Your task to perform on an android device: turn off priority inbox in the gmail app Image 0: 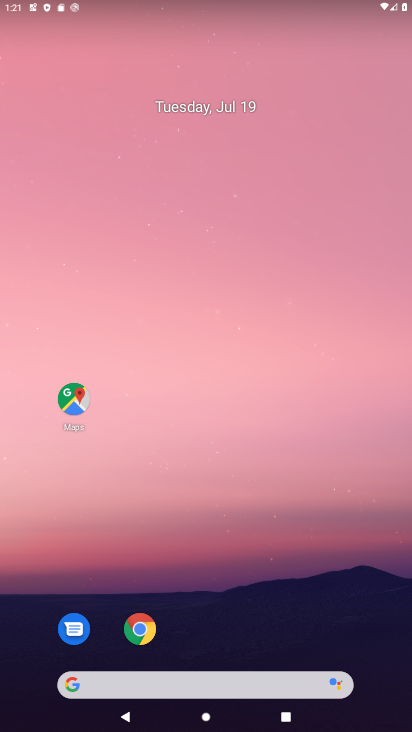
Step 0: drag from (210, 687) to (186, 146)
Your task to perform on an android device: turn off priority inbox in the gmail app Image 1: 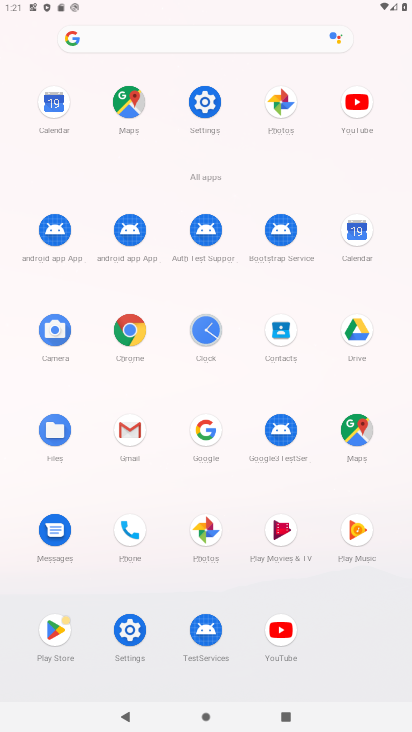
Step 1: click (126, 419)
Your task to perform on an android device: turn off priority inbox in the gmail app Image 2: 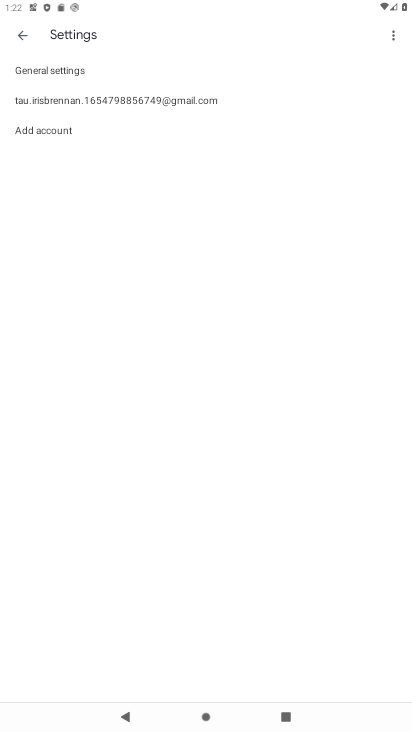
Step 2: click (70, 100)
Your task to perform on an android device: turn off priority inbox in the gmail app Image 3: 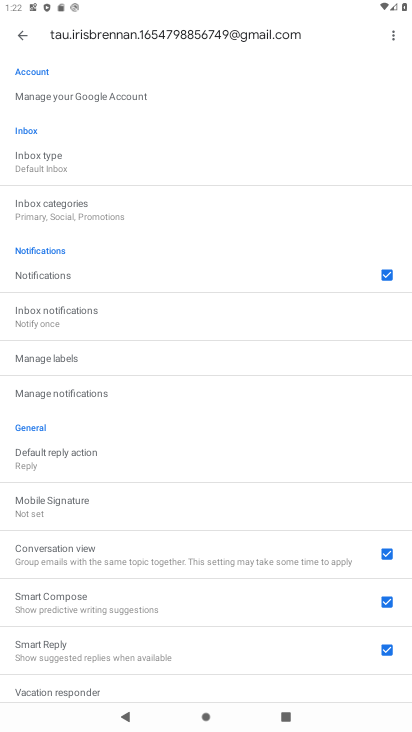
Step 3: click (36, 163)
Your task to perform on an android device: turn off priority inbox in the gmail app Image 4: 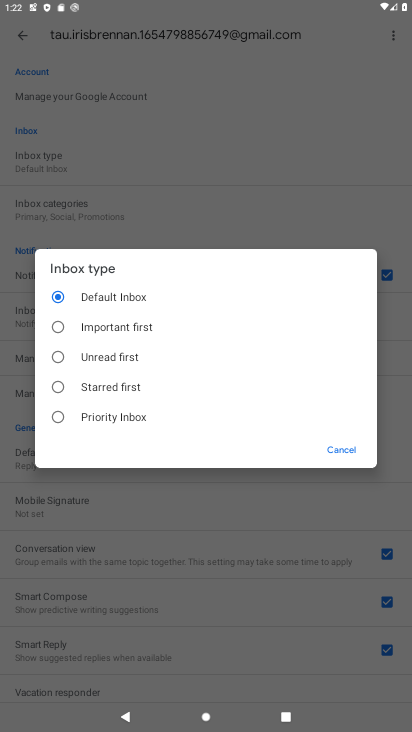
Step 4: click (93, 290)
Your task to perform on an android device: turn off priority inbox in the gmail app Image 5: 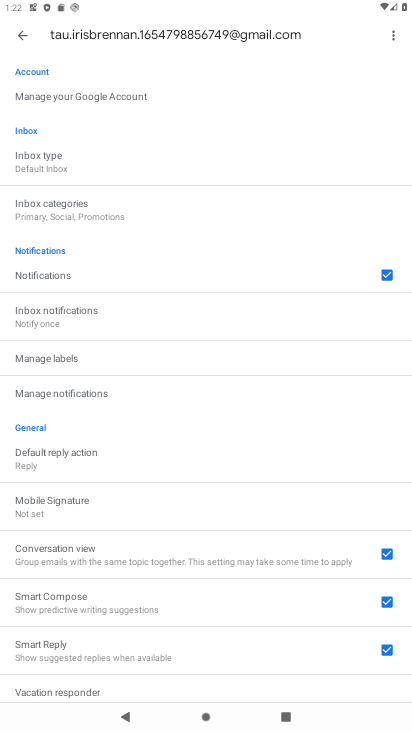
Step 5: task complete